Your task to perform on an android device: Open Google Chrome and click the shortcut for Amazon.com Image 0: 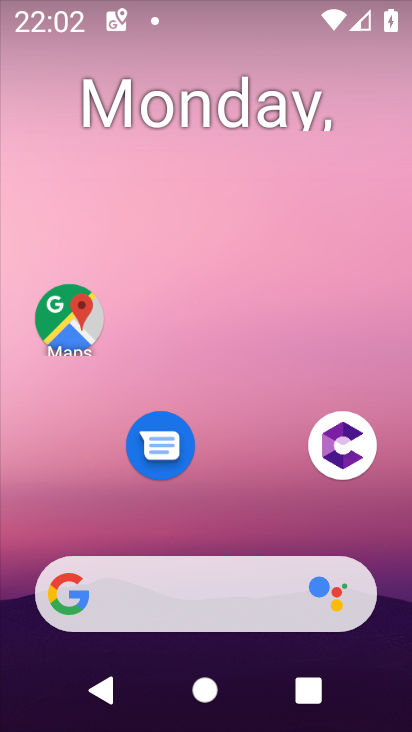
Step 0: drag from (216, 501) to (258, 185)
Your task to perform on an android device: Open Google Chrome and click the shortcut for Amazon.com Image 1: 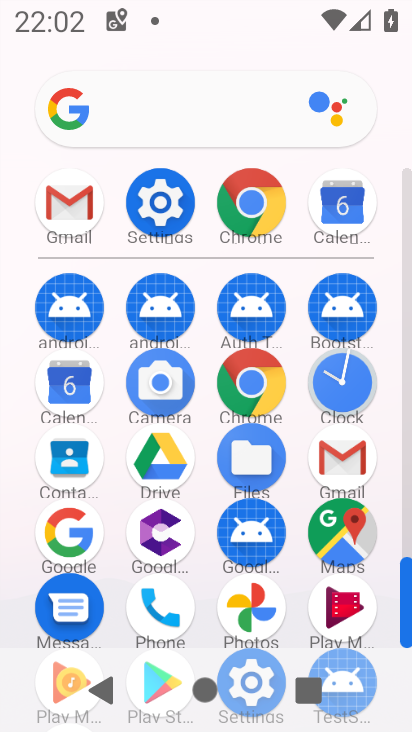
Step 1: click (239, 192)
Your task to perform on an android device: Open Google Chrome and click the shortcut for Amazon.com Image 2: 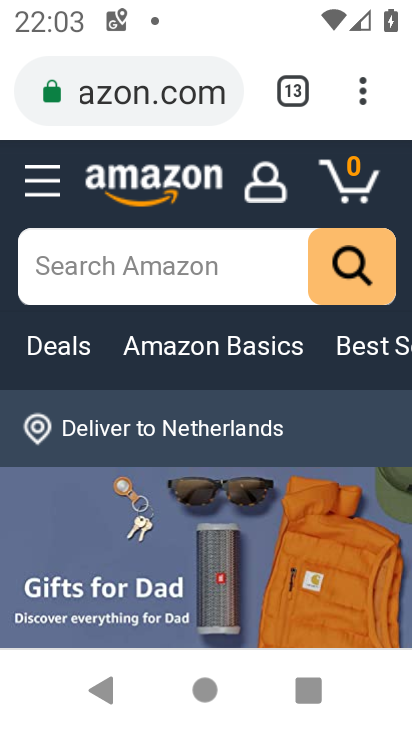
Step 2: click (286, 86)
Your task to perform on an android device: Open Google Chrome and click the shortcut for Amazon.com Image 3: 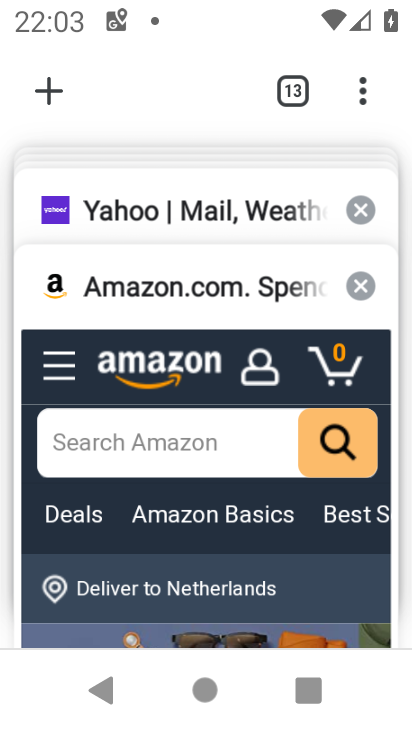
Step 3: click (40, 92)
Your task to perform on an android device: Open Google Chrome and click the shortcut for Amazon.com Image 4: 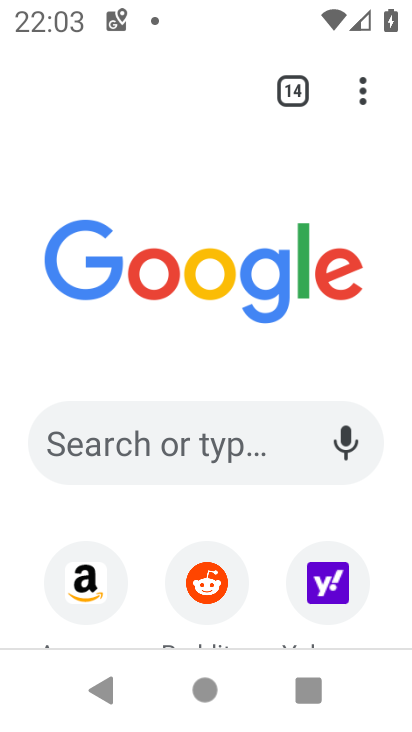
Step 4: click (81, 564)
Your task to perform on an android device: Open Google Chrome and click the shortcut for Amazon.com Image 5: 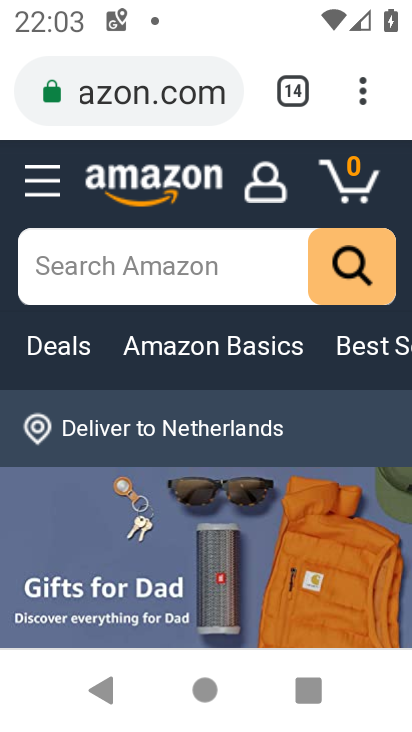
Step 5: task complete